Your task to perform on an android device: turn on the 24-hour format for clock Image 0: 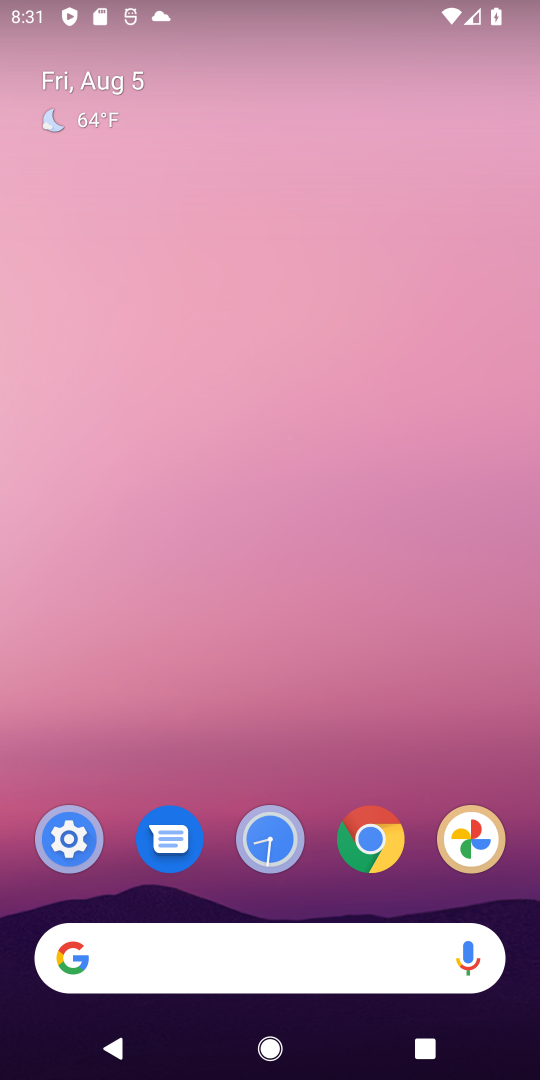
Step 0: drag from (321, 910) to (290, 36)
Your task to perform on an android device: turn on the 24-hour format for clock Image 1: 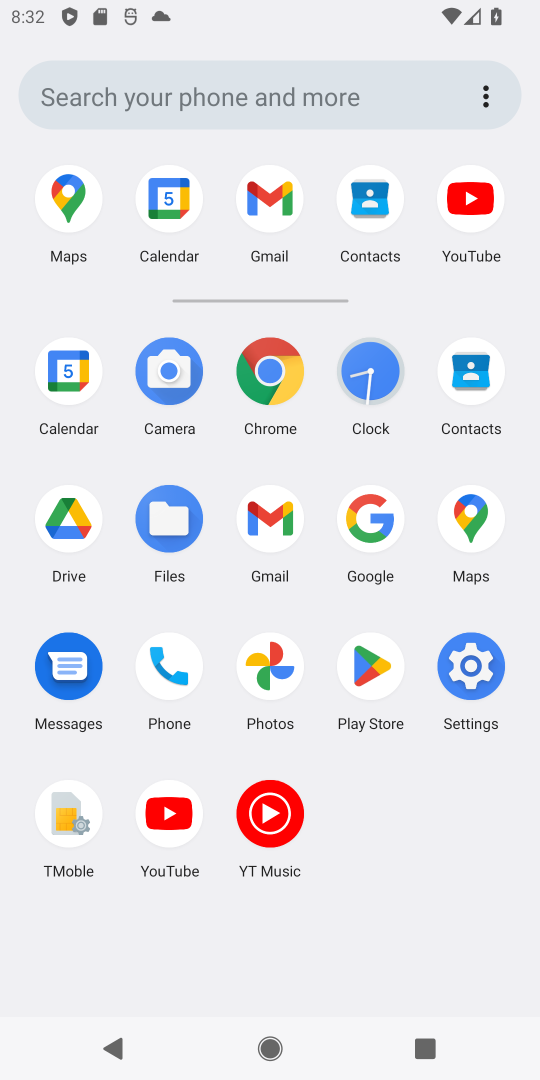
Step 1: click (375, 380)
Your task to perform on an android device: turn on the 24-hour format for clock Image 2: 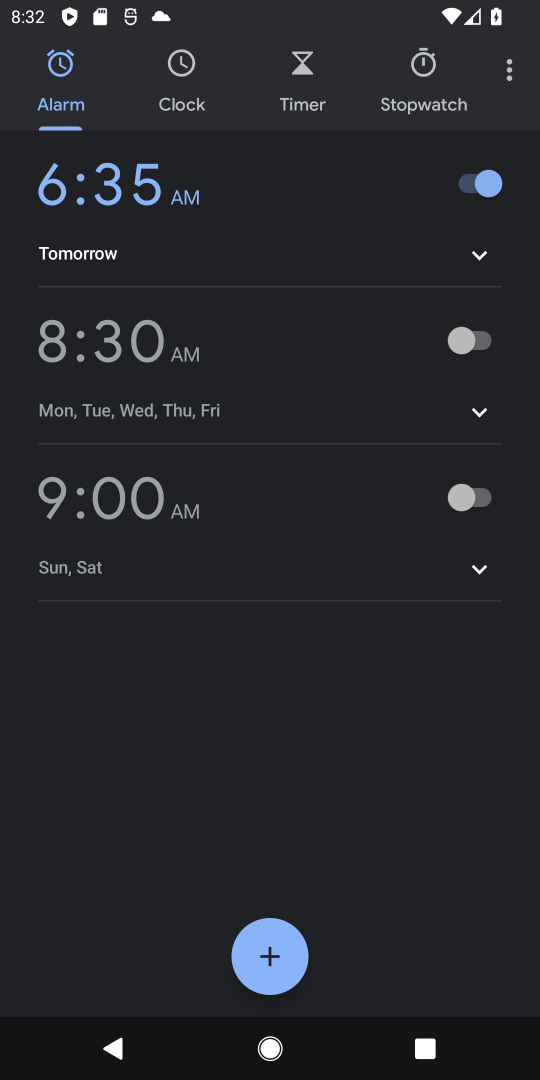
Step 2: click (510, 81)
Your task to perform on an android device: turn on the 24-hour format for clock Image 3: 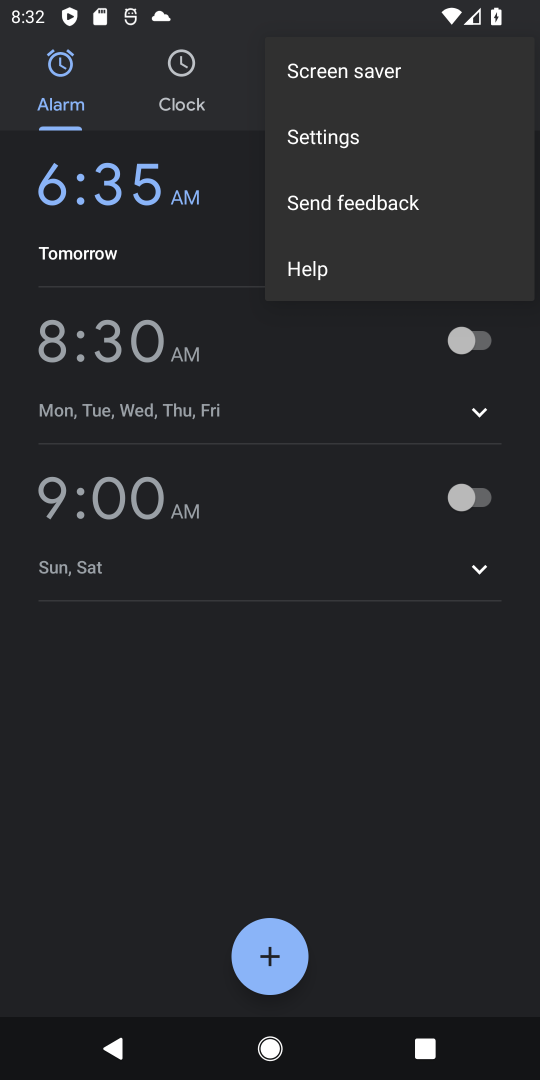
Step 3: click (331, 145)
Your task to perform on an android device: turn on the 24-hour format for clock Image 4: 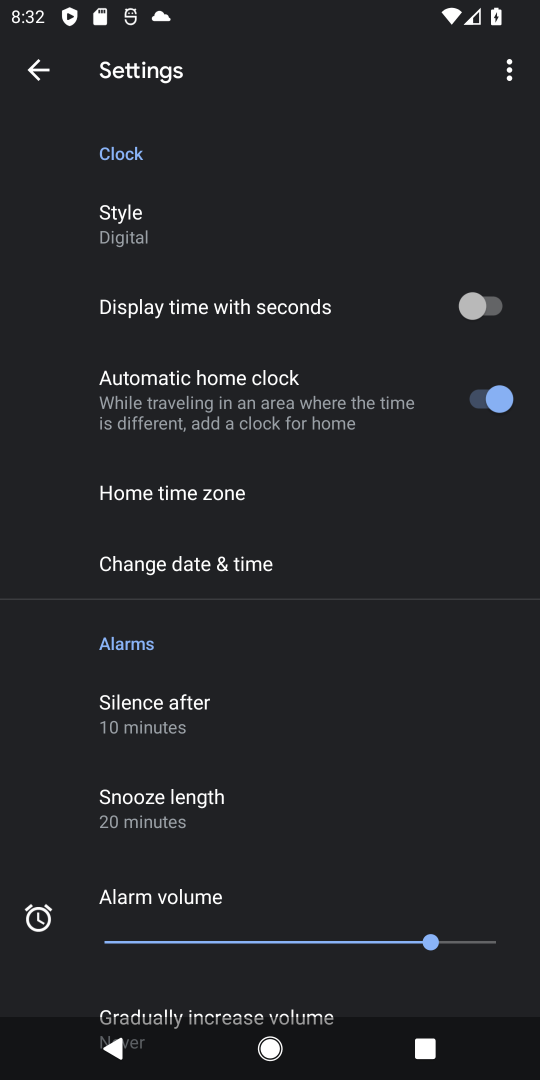
Step 4: click (195, 569)
Your task to perform on an android device: turn on the 24-hour format for clock Image 5: 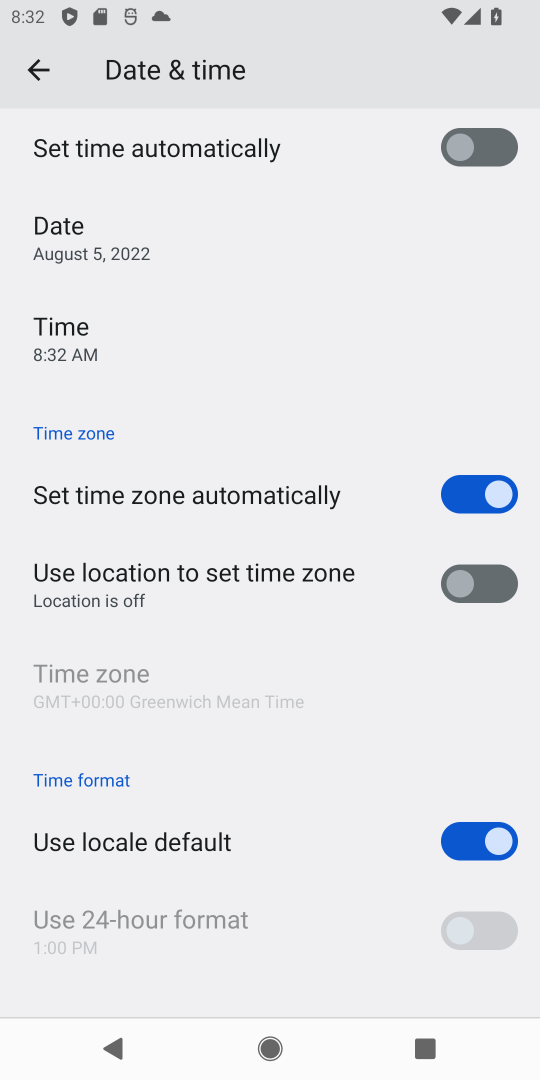
Step 5: click (488, 857)
Your task to perform on an android device: turn on the 24-hour format for clock Image 6: 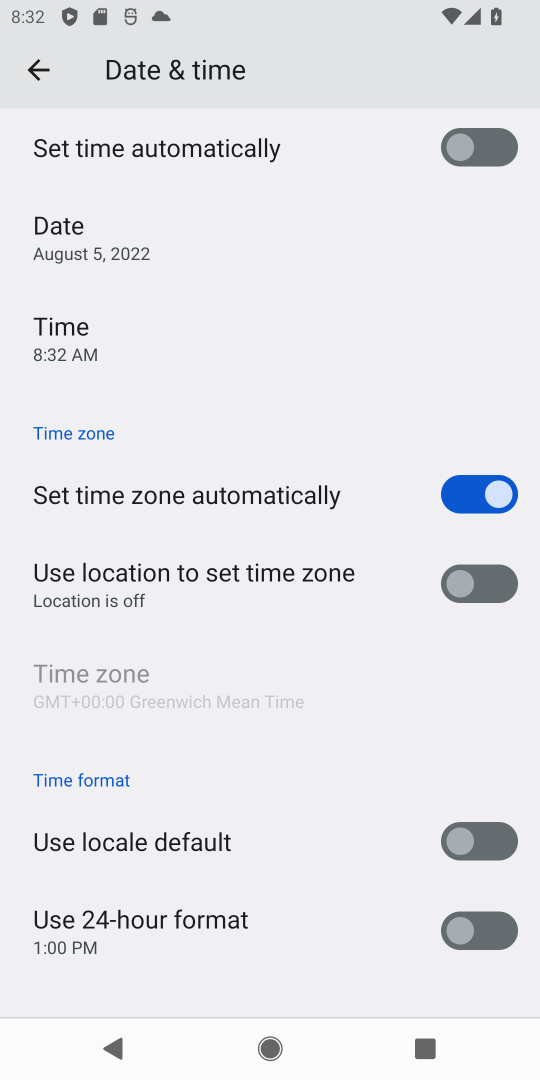
Step 6: click (497, 932)
Your task to perform on an android device: turn on the 24-hour format for clock Image 7: 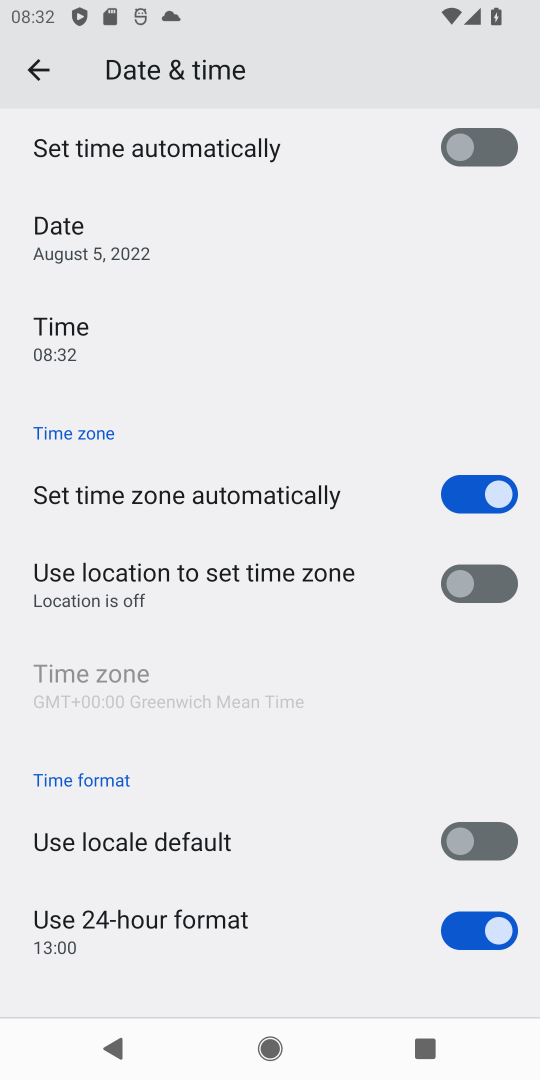
Step 7: task complete